Your task to perform on an android device: Go to wifi settings Image 0: 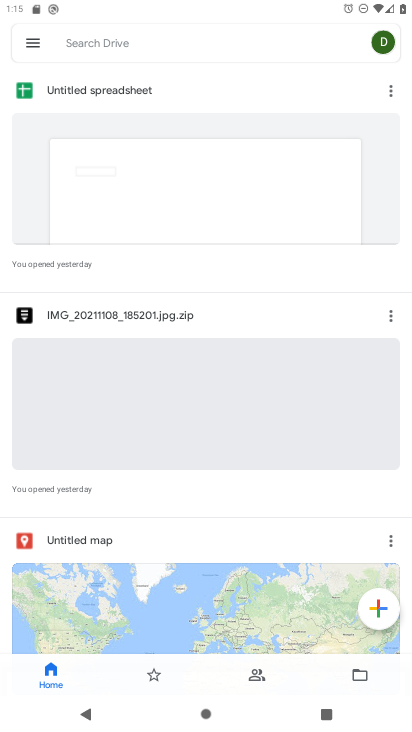
Step 0: press home button
Your task to perform on an android device: Go to wifi settings Image 1: 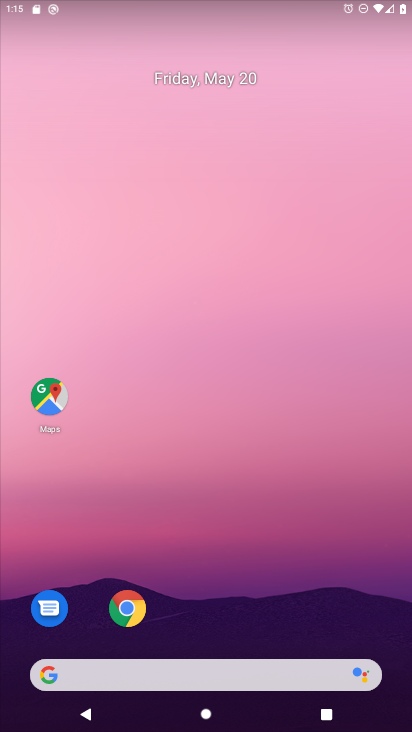
Step 1: drag from (344, 4) to (322, 623)
Your task to perform on an android device: Go to wifi settings Image 2: 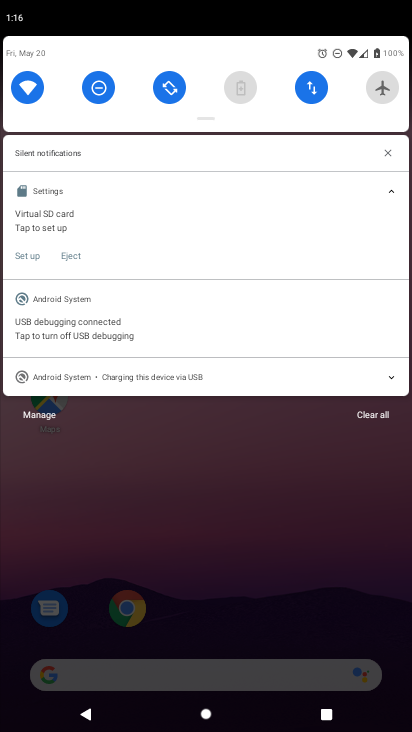
Step 2: click (22, 85)
Your task to perform on an android device: Go to wifi settings Image 3: 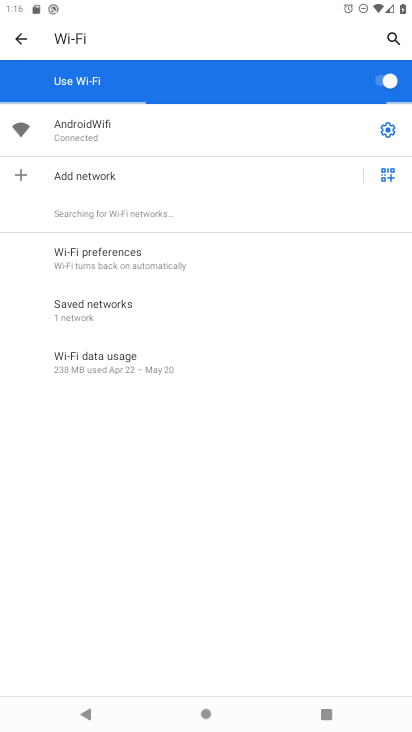
Step 3: task complete